Your task to perform on an android device: toggle translation in the chrome app Image 0: 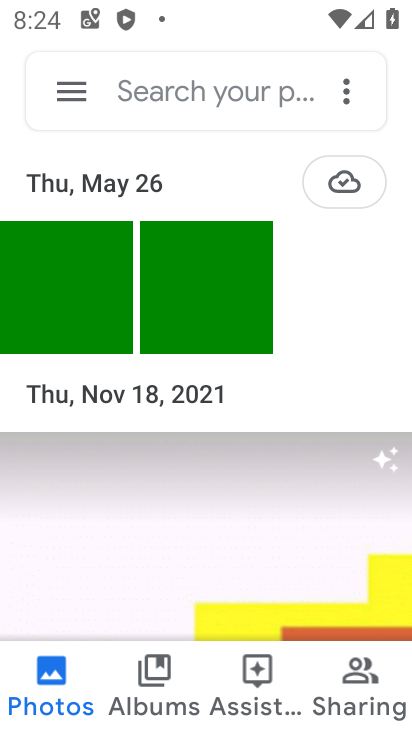
Step 0: press home button
Your task to perform on an android device: toggle translation in the chrome app Image 1: 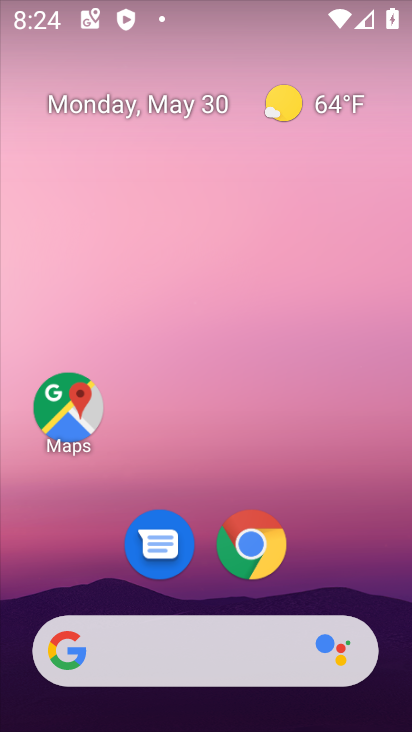
Step 1: click (232, 553)
Your task to perform on an android device: toggle translation in the chrome app Image 2: 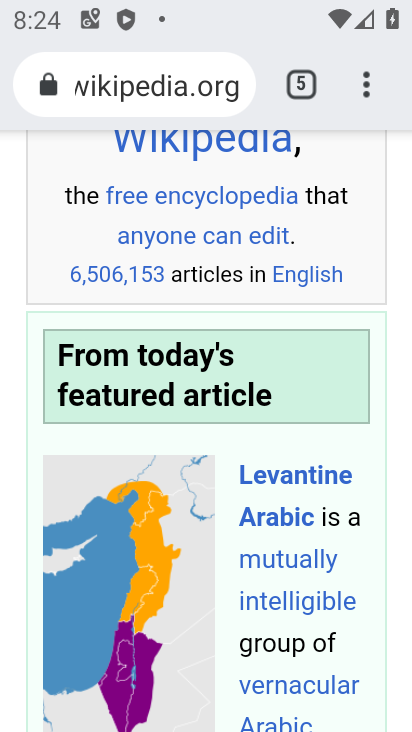
Step 2: click (367, 92)
Your task to perform on an android device: toggle translation in the chrome app Image 3: 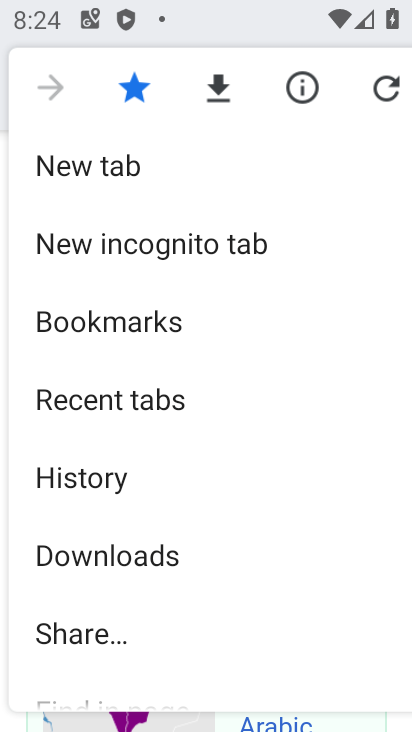
Step 3: drag from (267, 519) to (193, 45)
Your task to perform on an android device: toggle translation in the chrome app Image 4: 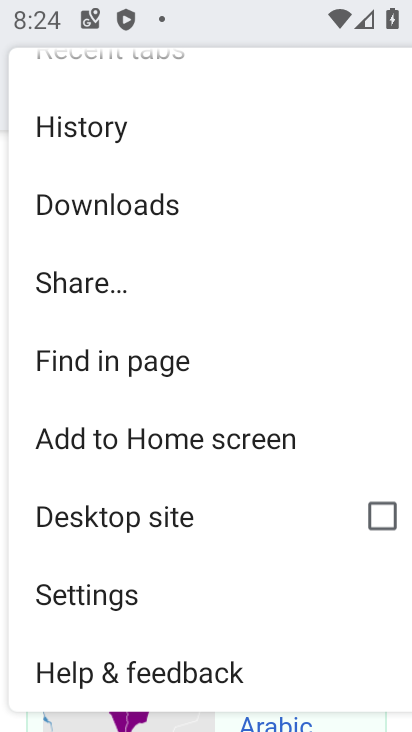
Step 4: click (138, 559)
Your task to perform on an android device: toggle translation in the chrome app Image 5: 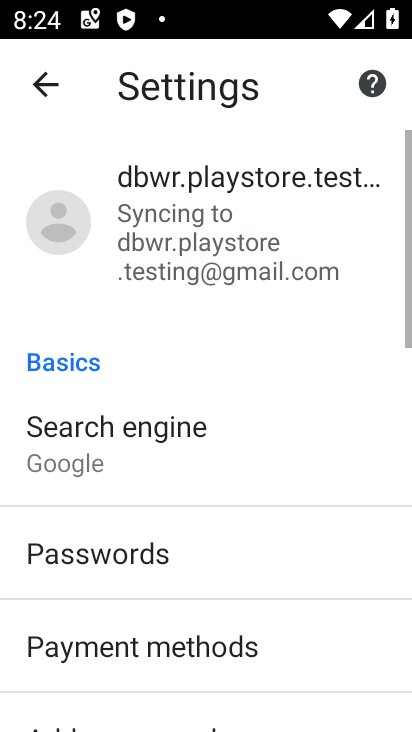
Step 5: drag from (137, 558) to (46, 30)
Your task to perform on an android device: toggle translation in the chrome app Image 6: 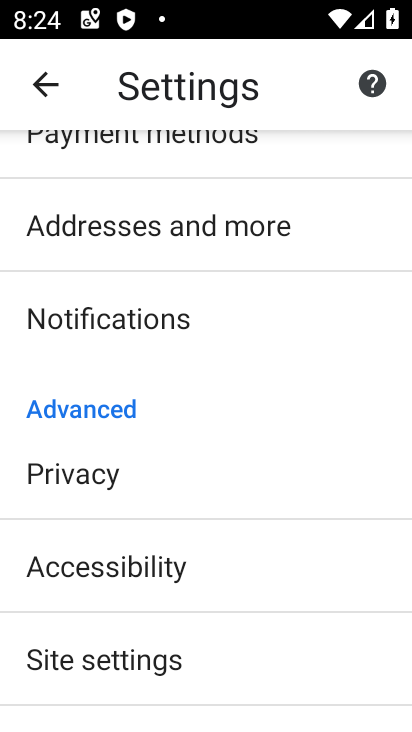
Step 6: drag from (145, 665) to (81, 174)
Your task to perform on an android device: toggle translation in the chrome app Image 7: 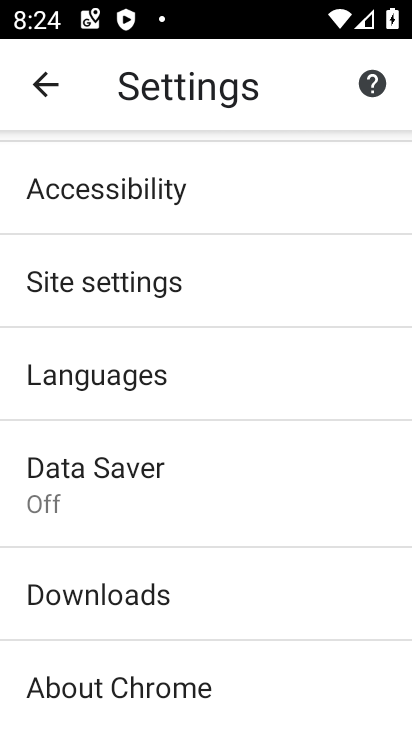
Step 7: click (162, 393)
Your task to perform on an android device: toggle translation in the chrome app Image 8: 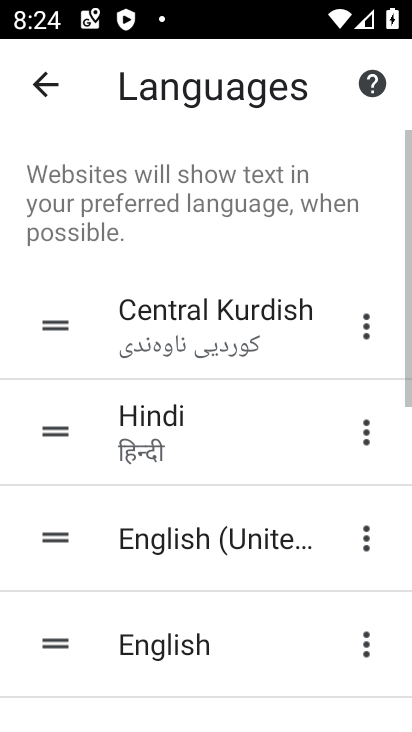
Step 8: drag from (266, 568) to (215, 20)
Your task to perform on an android device: toggle translation in the chrome app Image 9: 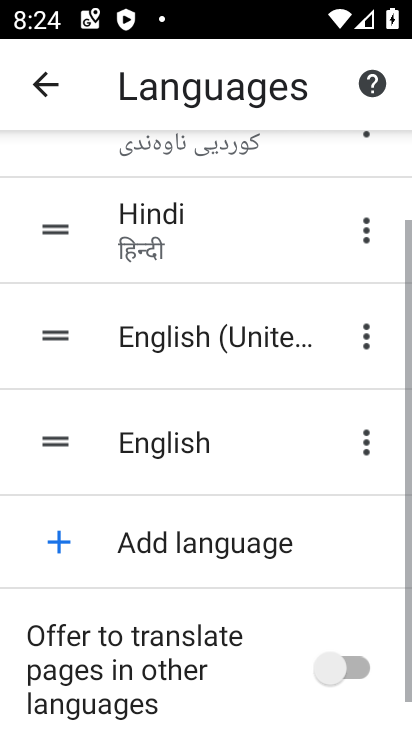
Step 9: click (349, 649)
Your task to perform on an android device: toggle translation in the chrome app Image 10: 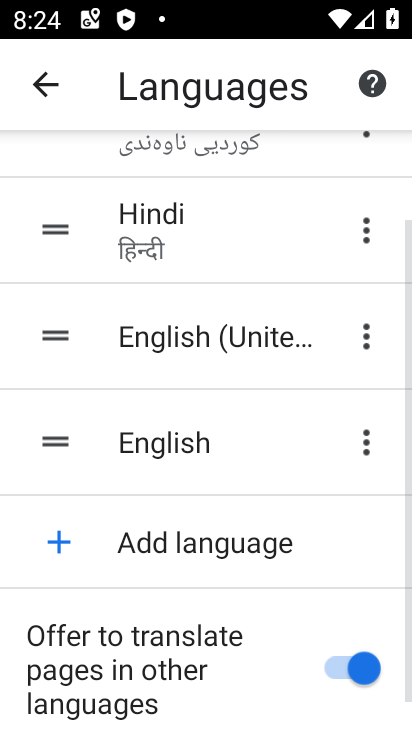
Step 10: task complete